Your task to perform on an android device: add a contact Image 0: 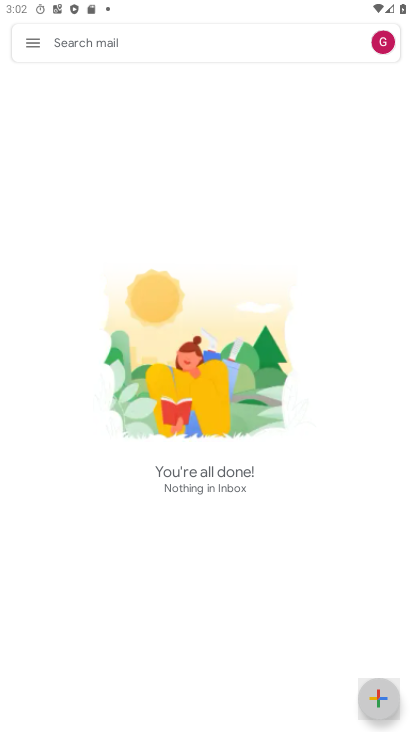
Step 0: press home button
Your task to perform on an android device: add a contact Image 1: 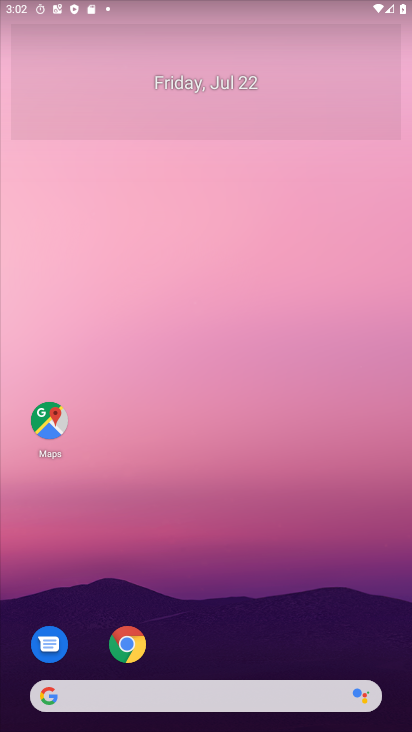
Step 1: drag from (241, 652) to (313, 148)
Your task to perform on an android device: add a contact Image 2: 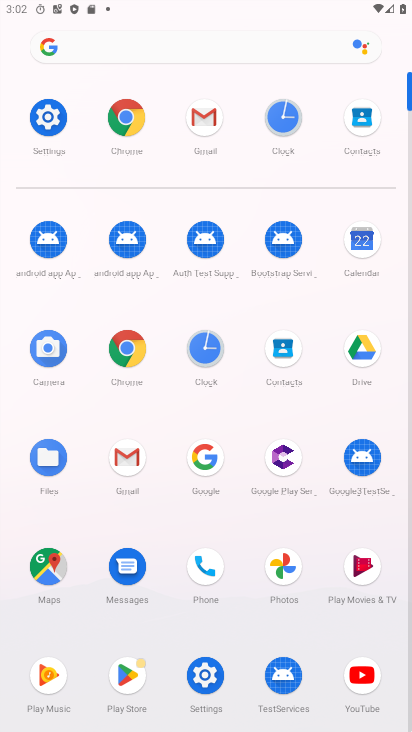
Step 2: click (287, 356)
Your task to perform on an android device: add a contact Image 3: 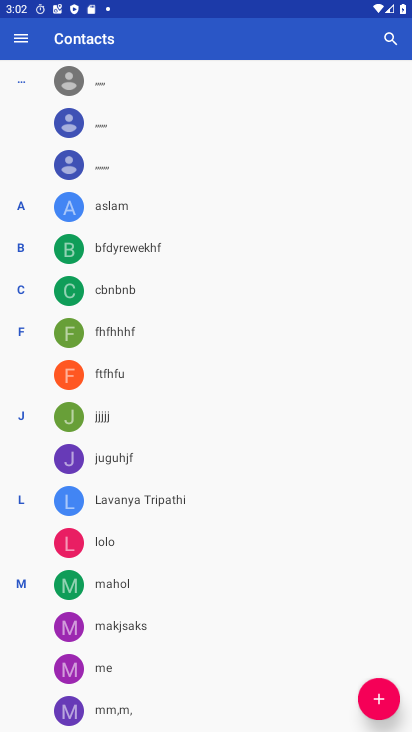
Step 3: click (379, 706)
Your task to perform on an android device: add a contact Image 4: 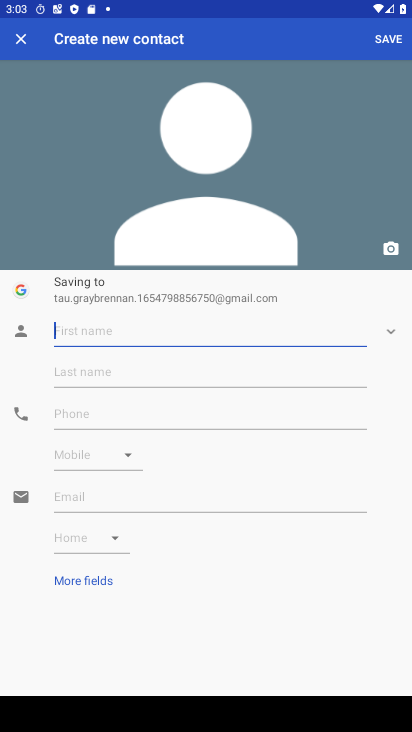
Step 4: type "hjhjhhhkh"
Your task to perform on an android device: add a contact Image 5: 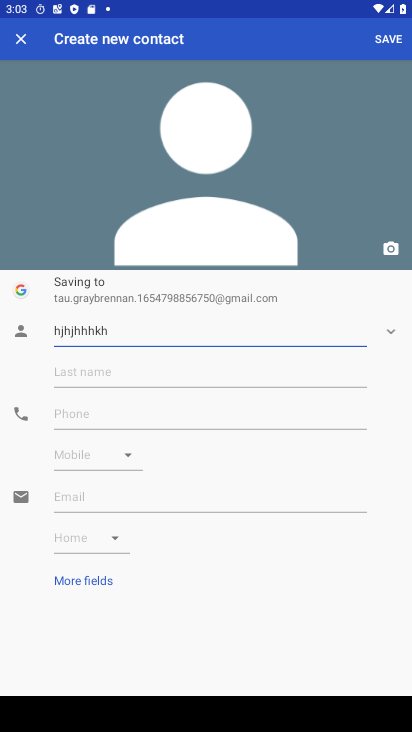
Step 5: click (125, 423)
Your task to perform on an android device: add a contact Image 6: 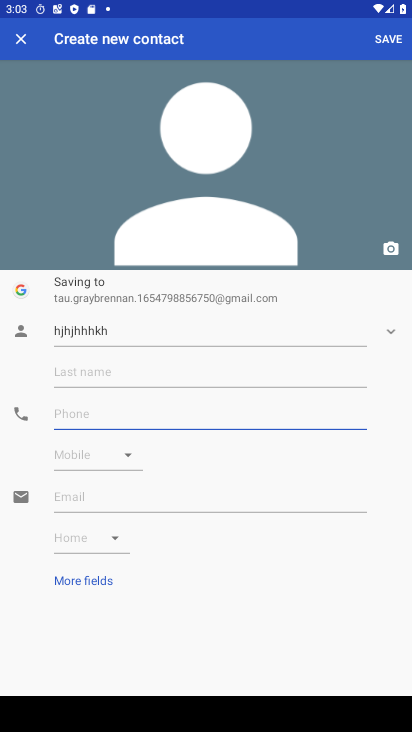
Step 6: type "797999"
Your task to perform on an android device: add a contact Image 7: 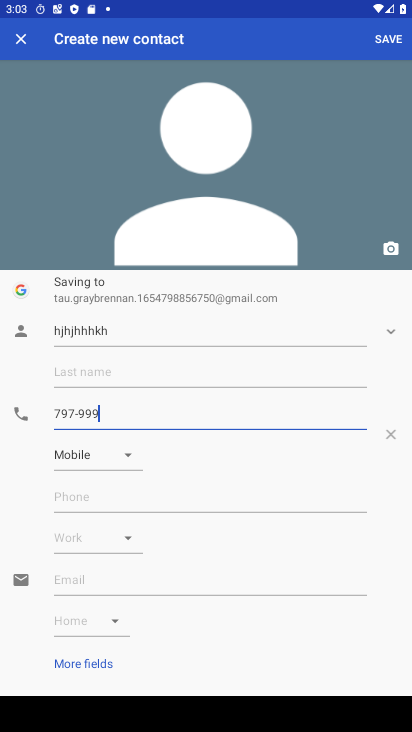
Step 7: click (390, 36)
Your task to perform on an android device: add a contact Image 8: 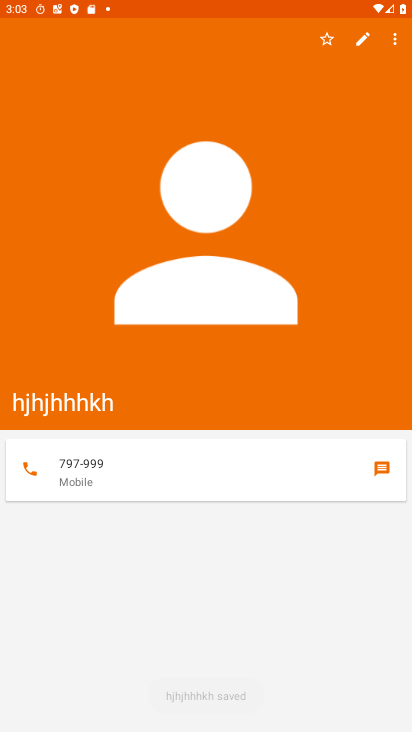
Step 8: task complete